Your task to perform on an android device: Go to Wikipedia Image 0: 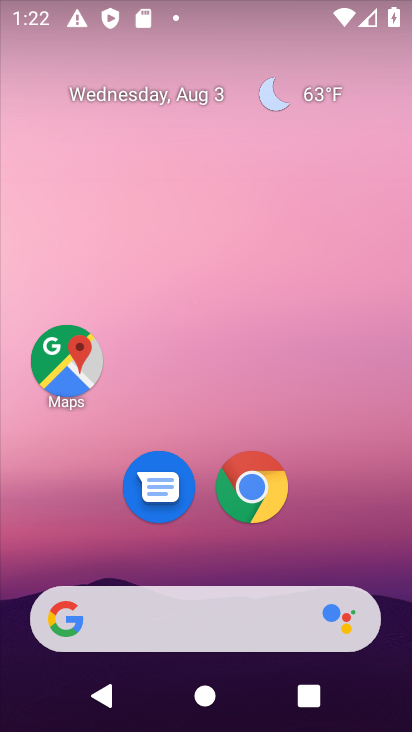
Step 0: press home button
Your task to perform on an android device: Go to Wikipedia Image 1: 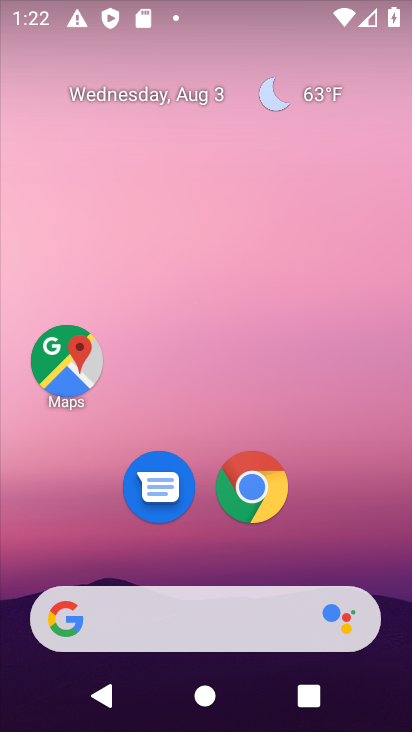
Step 1: drag from (343, 547) to (347, 115)
Your task to perform on an android device: Go to Wikipedia Image 2: 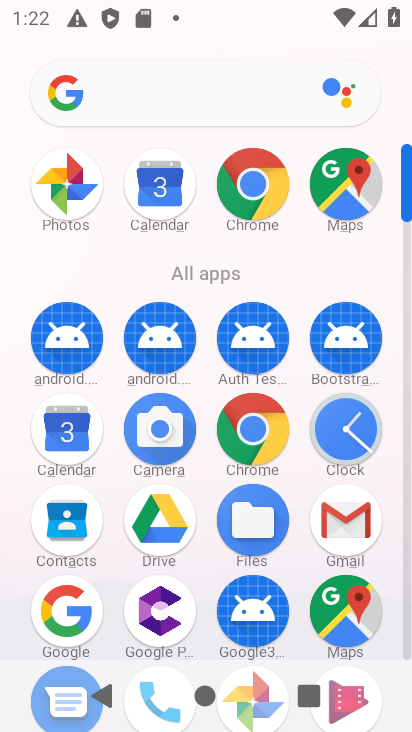
Step 2: click (255, 425)
Your task to perform on an android device: Go to Wikipedia Image 3: 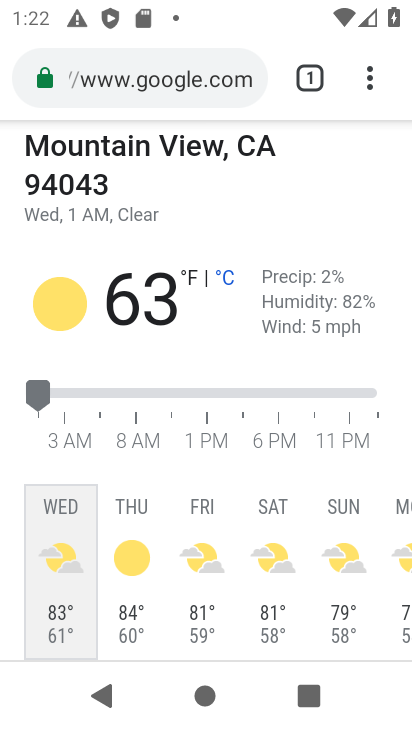
Step 3: click (141, 69)
Your task to perform on an android device: Go to Wikipedia Image 4: 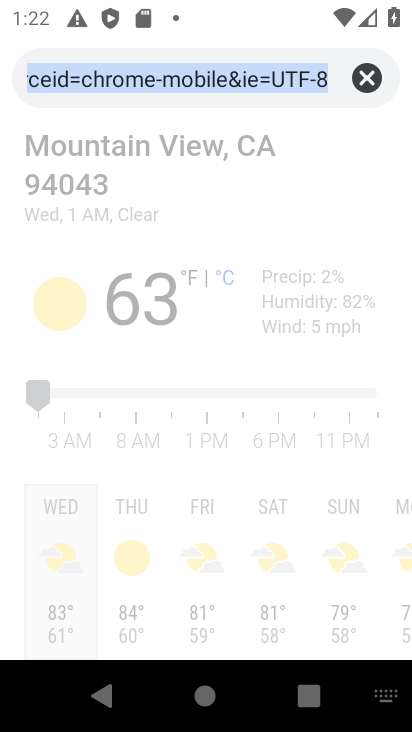
Step 4: click (366, 72)
Your task to perform on an android device: Go to Wikipedia Image 5: 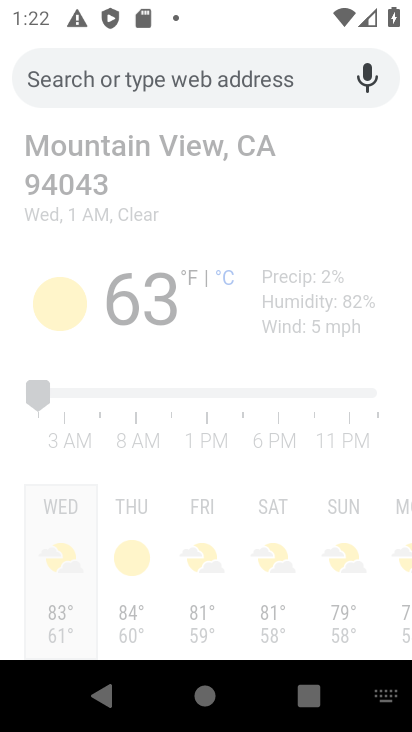
Step 5: type "Wikipedia"
Your task to perform on an android device: Go to Wikipedia Image 6: 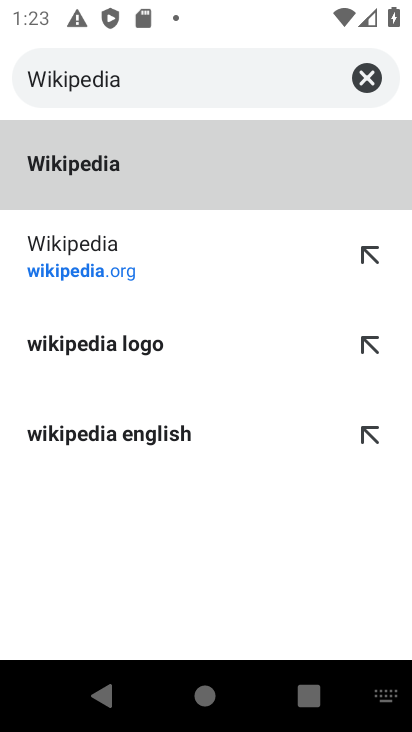
Step 6: click (76, 270)
Your task to perform on an android device: Go to Wikipedia Image 7: 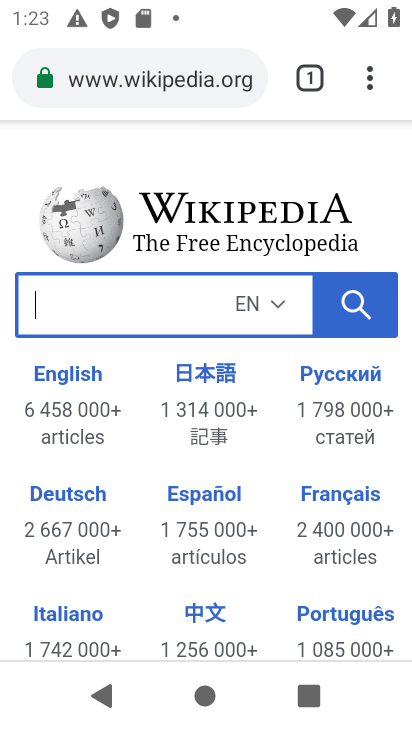
Step 7: task complete